Your task to perform on an android device: Search for "rayovac triple a" on walmart.com, select the first entry, add it to the cart, then select checkout. Image 0: 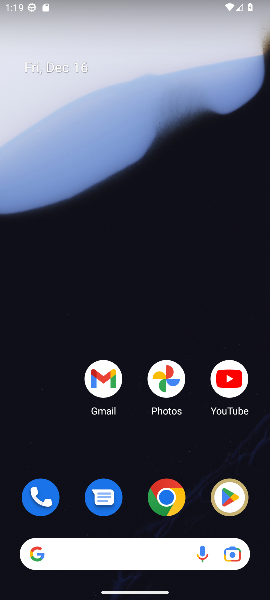
Step 0: click (165, 502)
Your task to perform on an android device: Search for "rayovac triple a" on walmart.com, select the first entry, add it to the cart, then select checkout. Image 1: 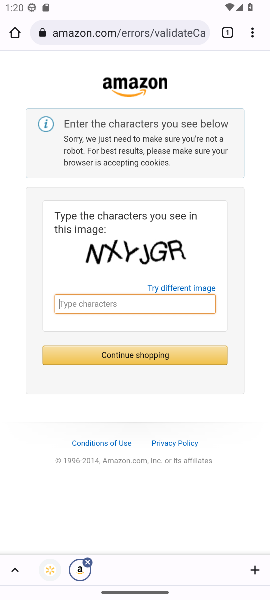
Step 1: task complete